Your task to perform on an android device: Open the stopwatch Image 0: 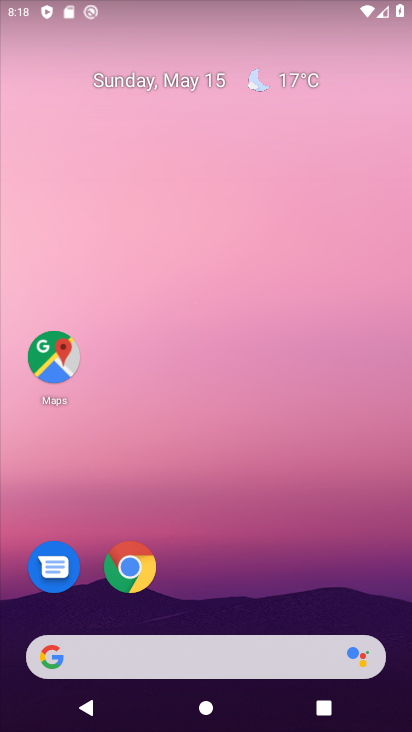
Step 0: click (155, 588)
Your task to perform on an android device: Open the stopwatch Image 1: 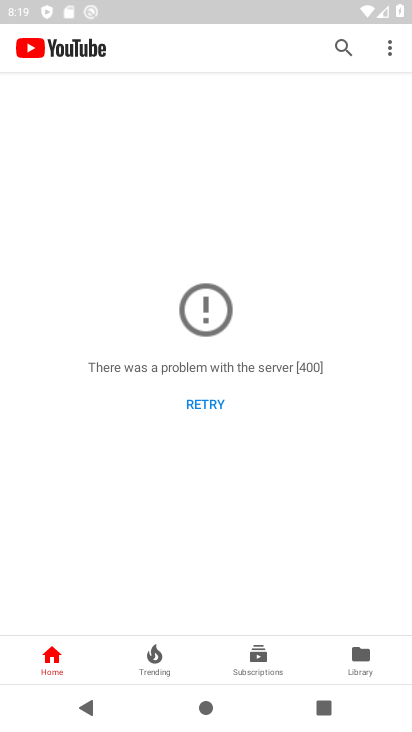
Step 1: press back button
Your task to perform on an android device: Open the stopwatch Image 2: 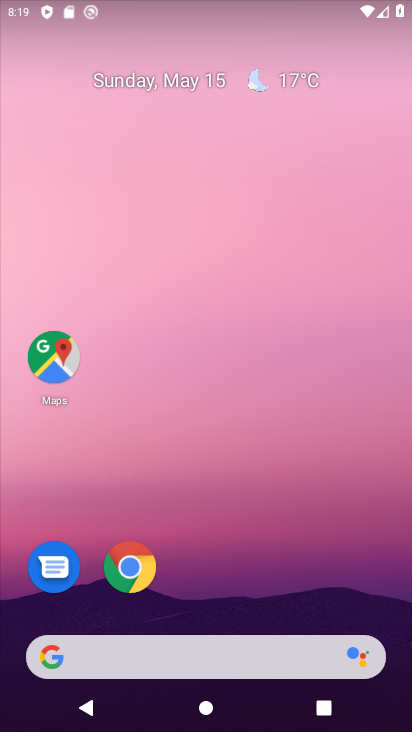
Step 2: drag from (254, 640) to (274, 15)
Your task to perform on an android device: Open the stopwatch Image 3: 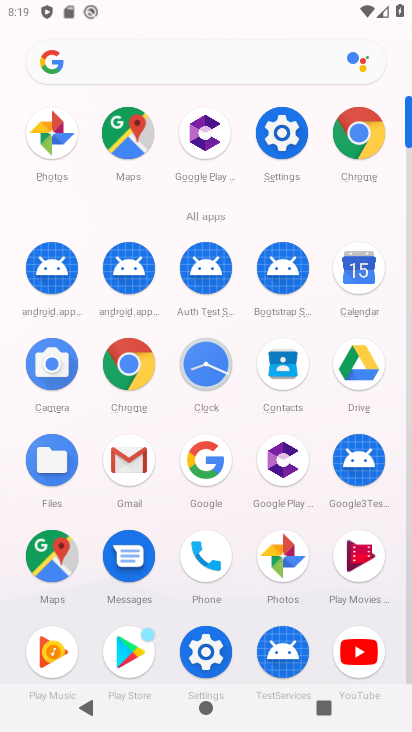
Step 3: click (206, 377)
Your task to perform on an android device: Open the stopwatch Image 4: 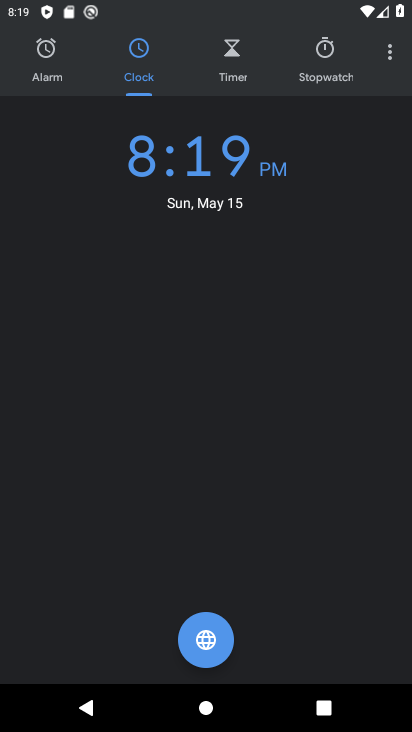
Step 4: click (324, 57)
Your task to perform on an android device: Open the stopwatch Image 5: 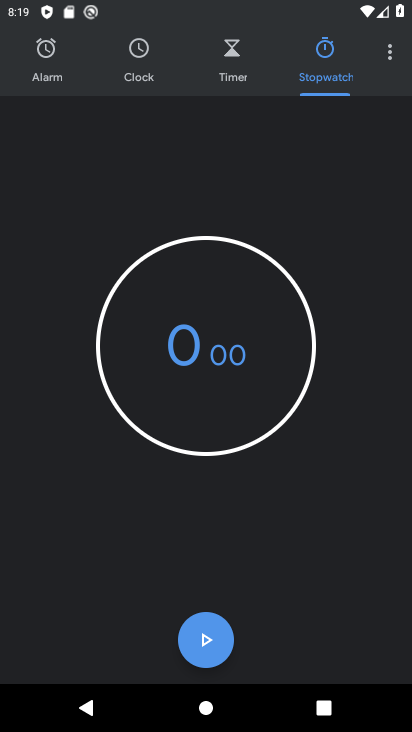
Step 5: task complete